Your task to perform on an android device: Go to notification settings Image 0: 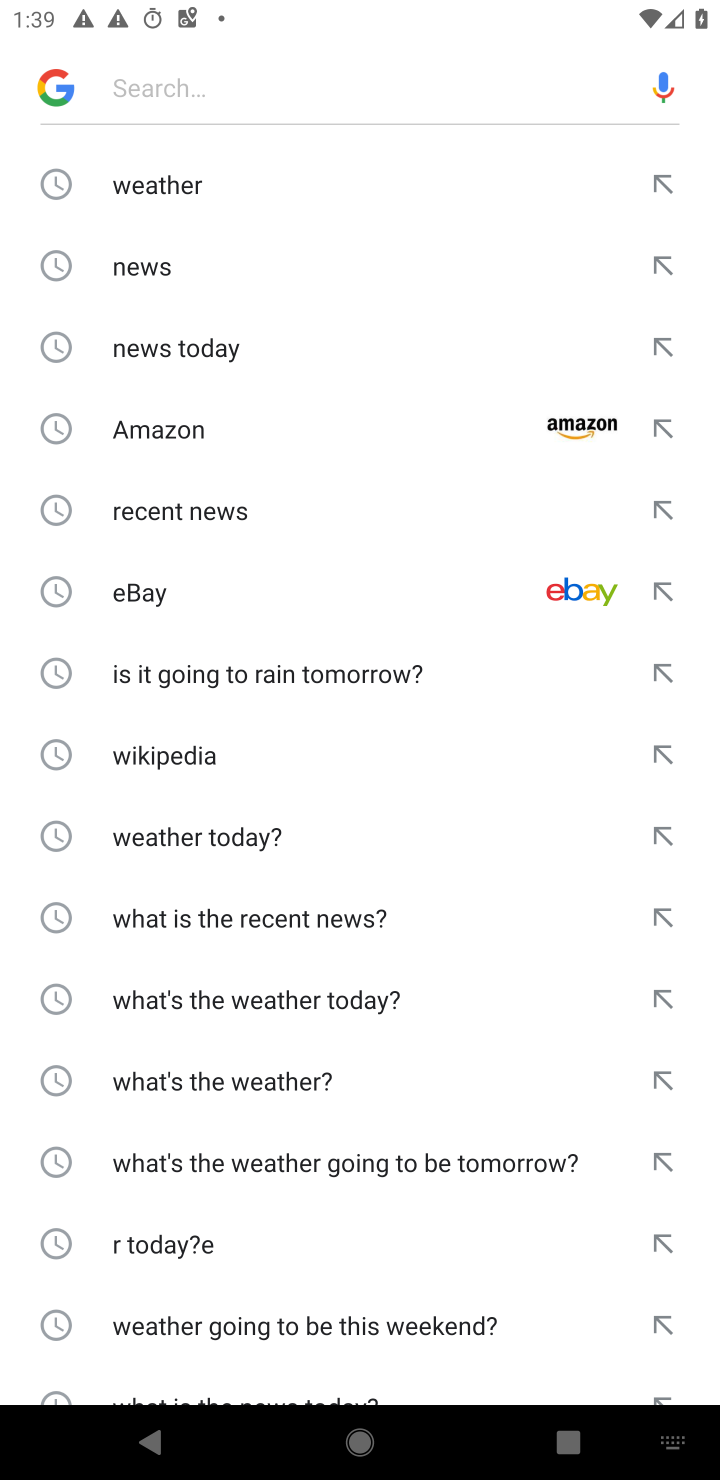
Step 0: press home button
Your task to perform on an android device: Go to notification settings Image 1: 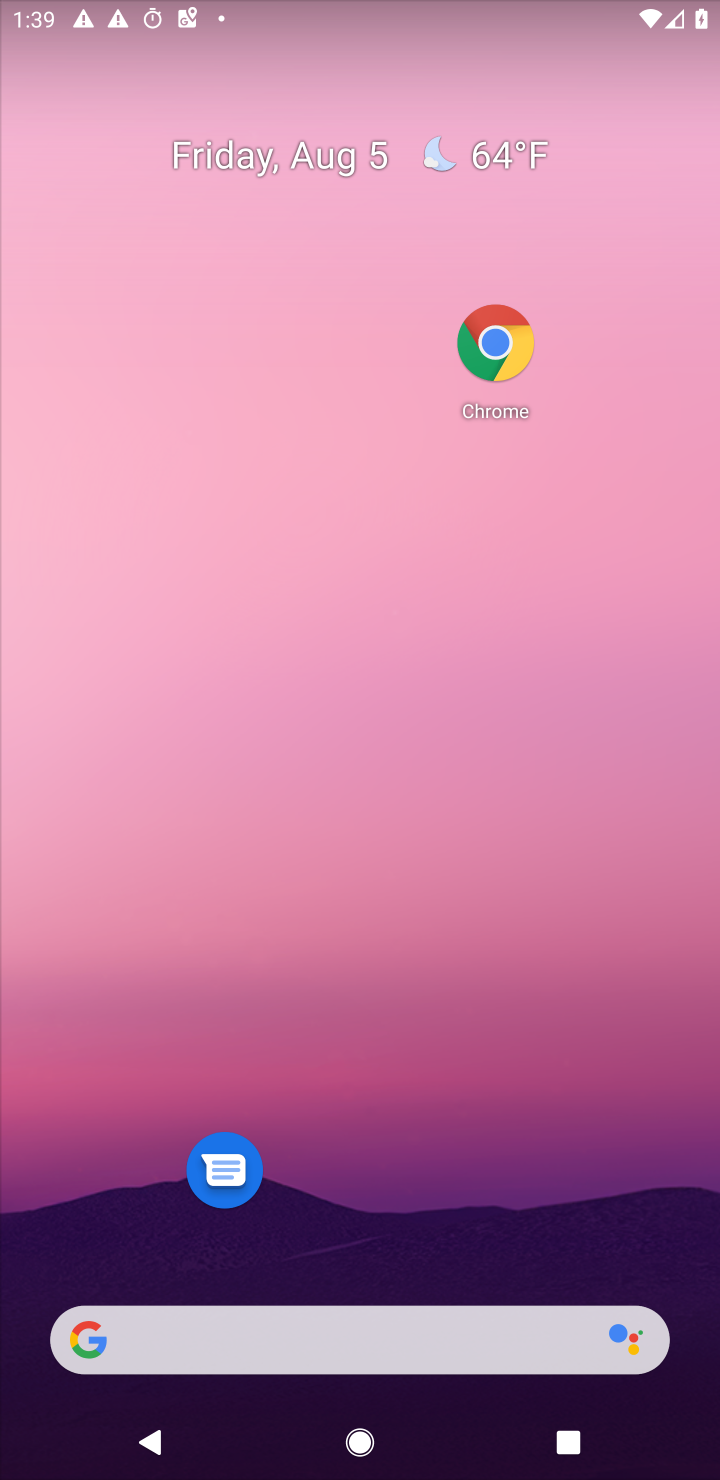
Step 1: drag from (374, 753) to (306, 65)
Your task to perform on an android device: Go to notification settings Image 2: 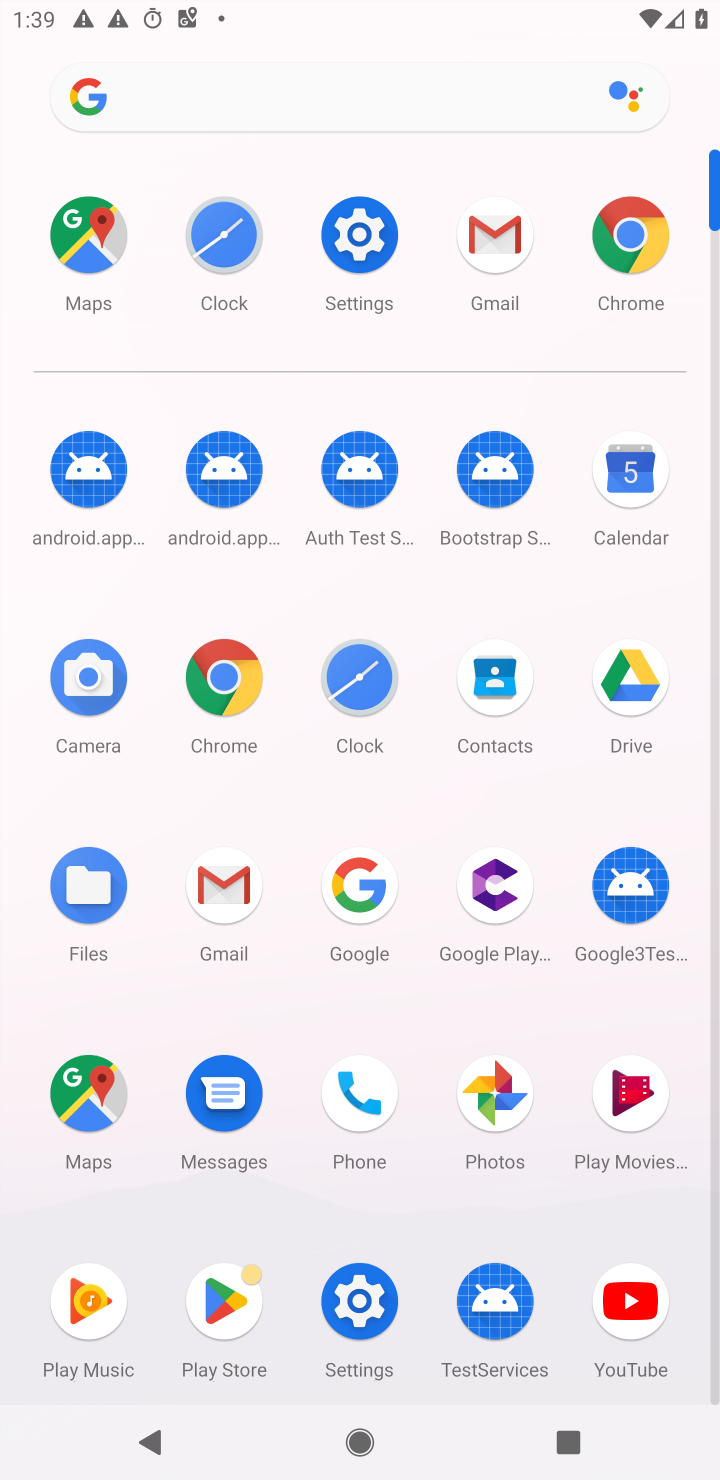
Step 2: click (364, 1310)
Your task to perform on an android device: Go to notification settings Image 3: 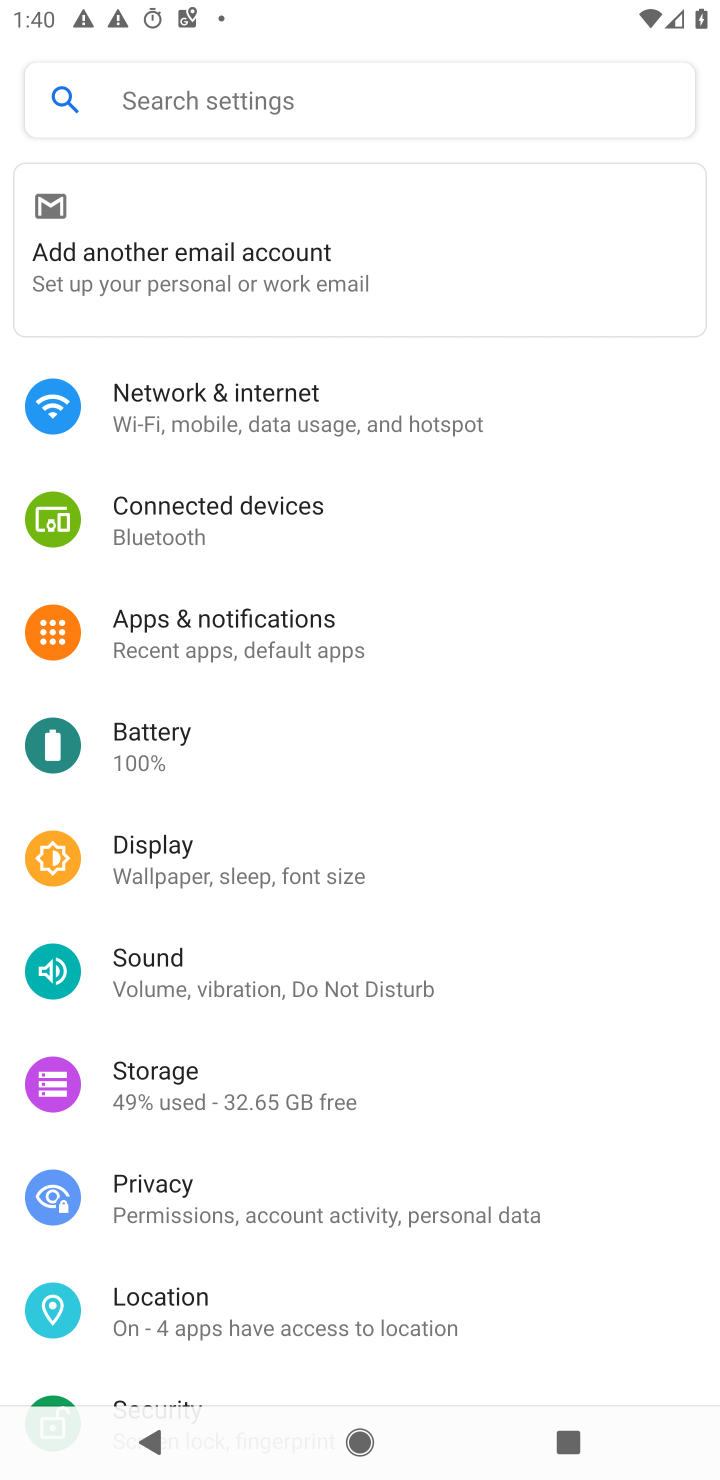
Step 3: click (322, 631)
Your task to perform on an android device: Go to notification settings Image 4: 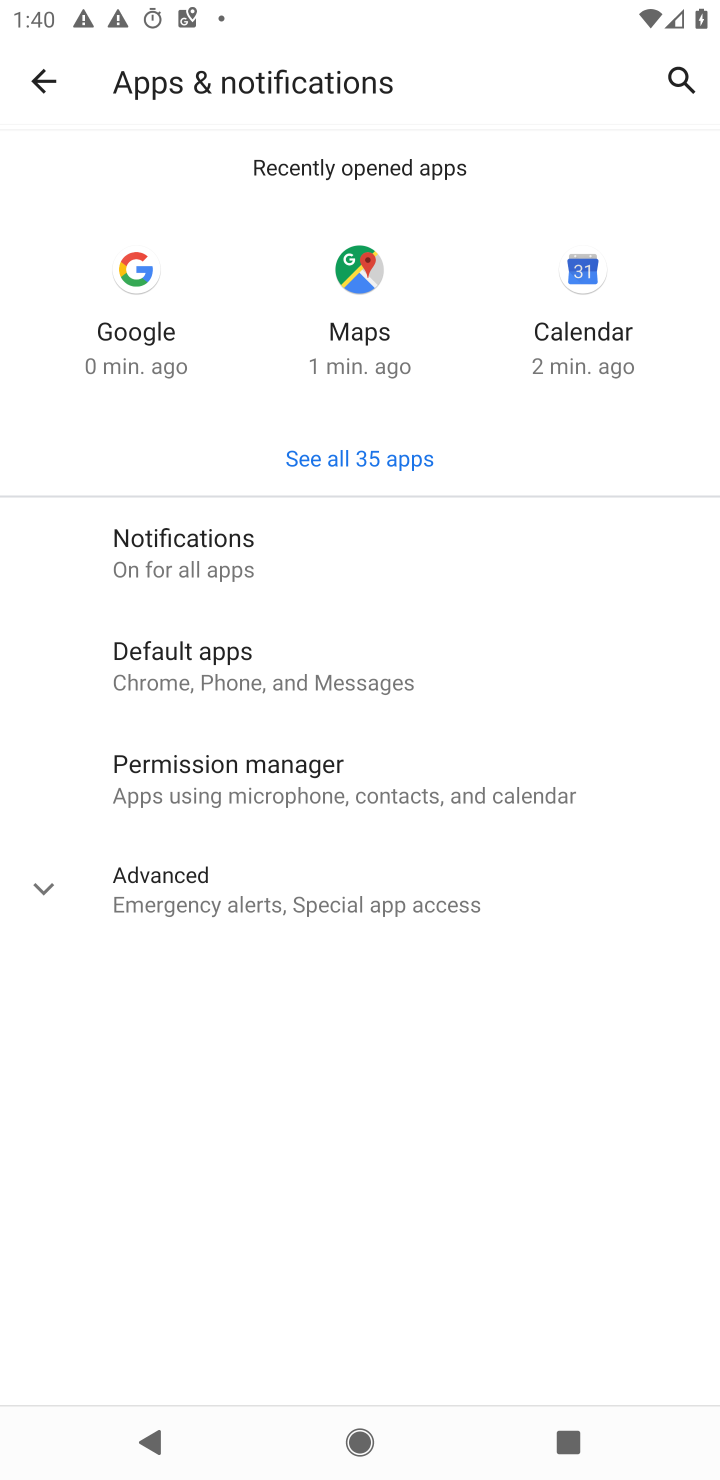
Step 4: click (311, 589)
Your task to perform on an android device: Go to notification settings Image 5: 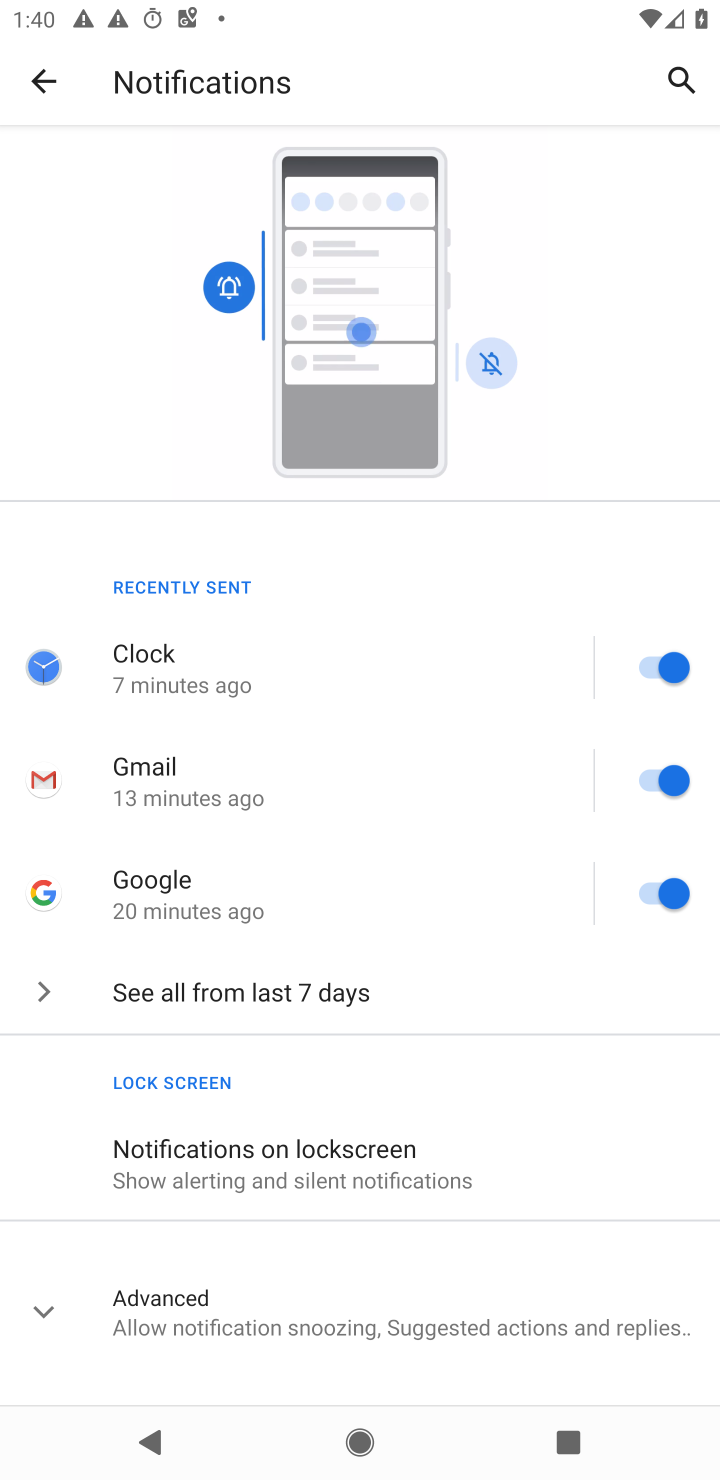
Step 5: task complete